Your task to perform on an android device: Open accessibility settings Image 0: 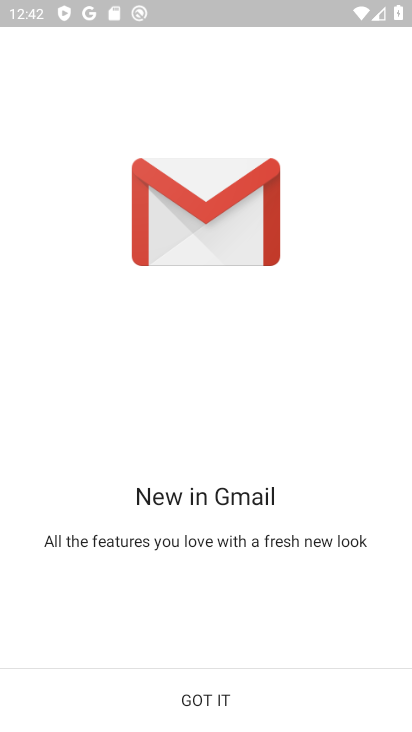
Step 0: press home button
Your task to perform on an android device: Open accessibility settings Image 1: 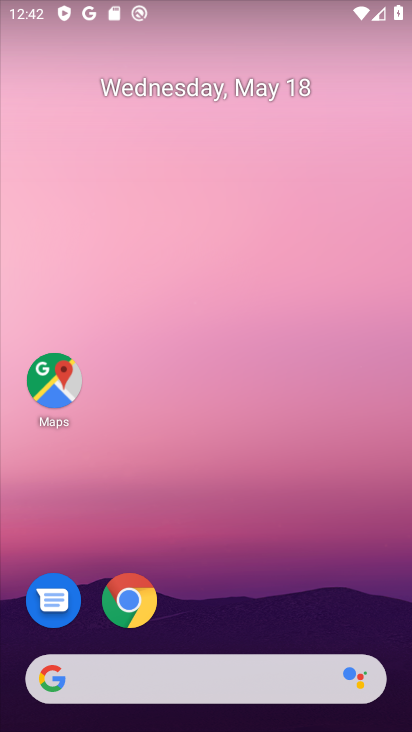
Step 1: drag from (186, 638) to (198, 261)
Your task to perform on an android device: Open accessibility settings Image 2: 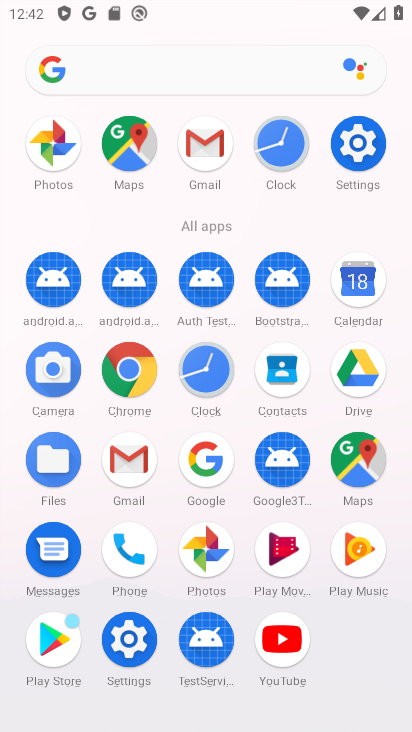
Step 2: click (360, 143)
Your task to perform on an android device: Open accessibility settings Image 3: 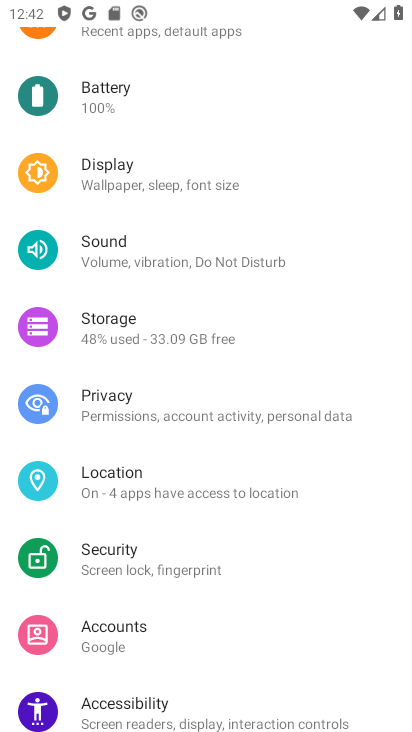
Step 3: click (141, 713)
Your task to perform on an android device: Open accessibility settings Image 4: 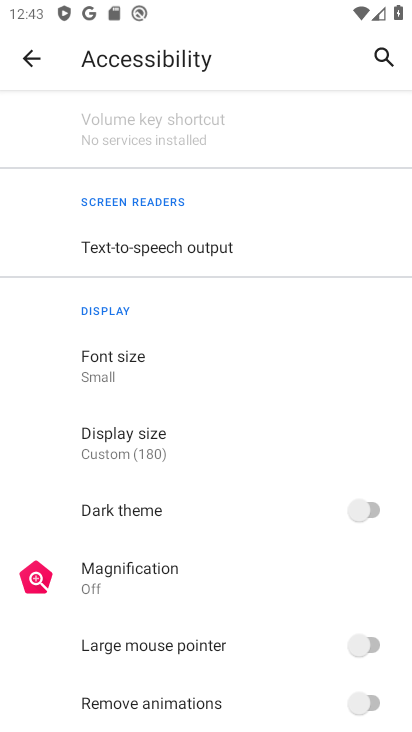
Step 4: task complete